Your task to perform on an android device: search for starred emails in the gmail app Image 0: 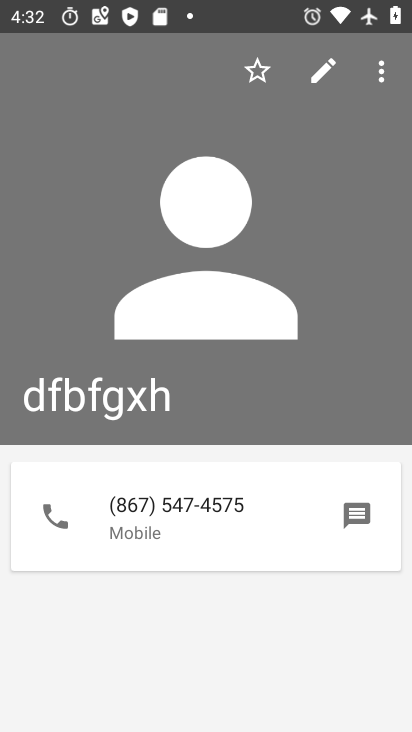
Step 0: press home button
Your task to perform on an android device: search for starred emails in the gmail app Image 1: 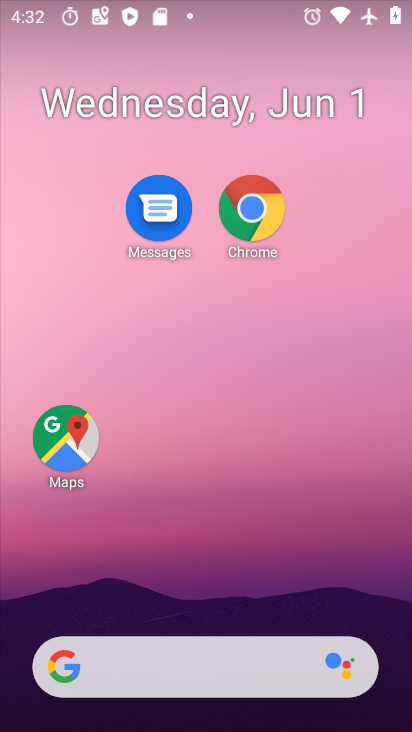
Step 1: drag from (191, 612) to (156, 209)
Your task to perform on an android device: search for starred emails in the gmail app Image 2: 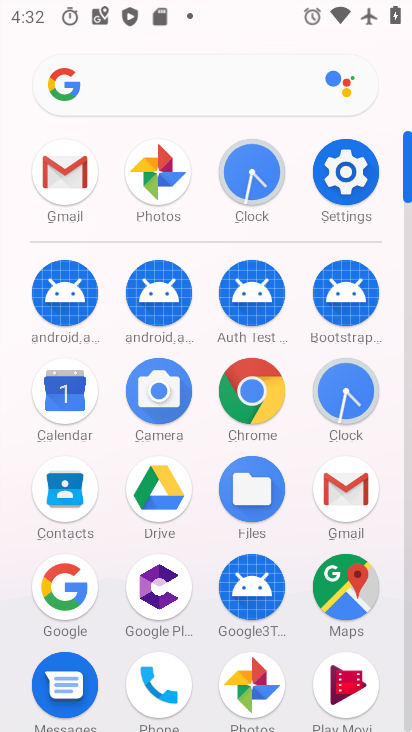
Step 2: click (79, 180)
Your task to perform on an android device: search for starred emails in the gmail app Image 3: 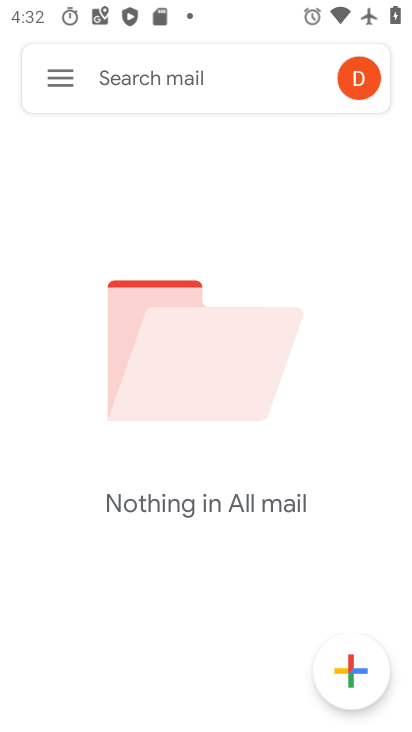
Step 3: click (69, 79)
Your task to perform on an android device: search for starred emails in the gmail app Image 4: 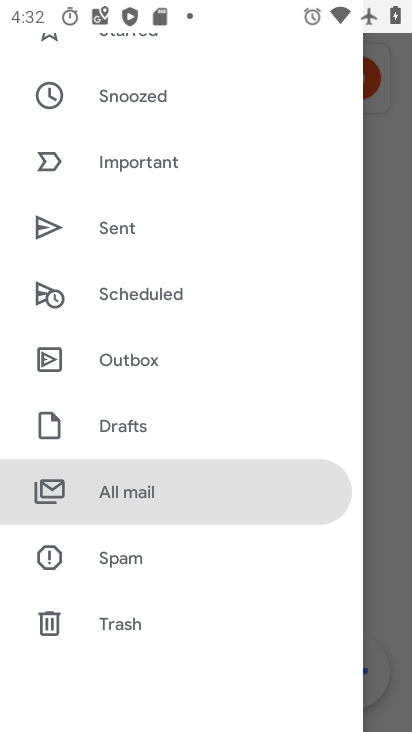
Step 4: drag from (155, 147) to (186, 401)
Your task to perform on an android device: search for starred emails in the gmail app Image 5: 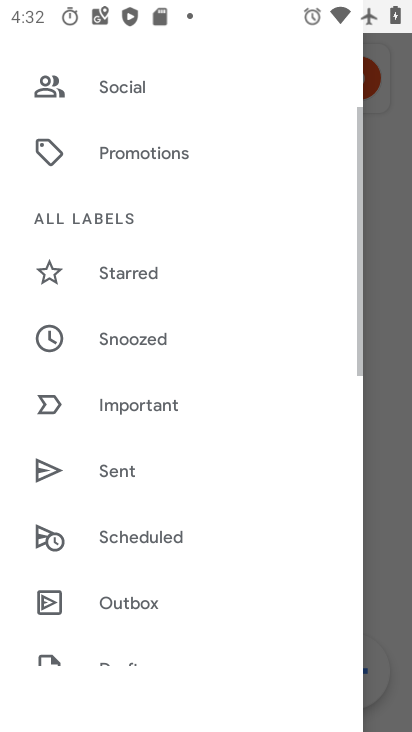
Step 5: drag from (138, 151) to (187, 502)
Your task to perform on an android device: search for starred emails in the gmail app Image 6: 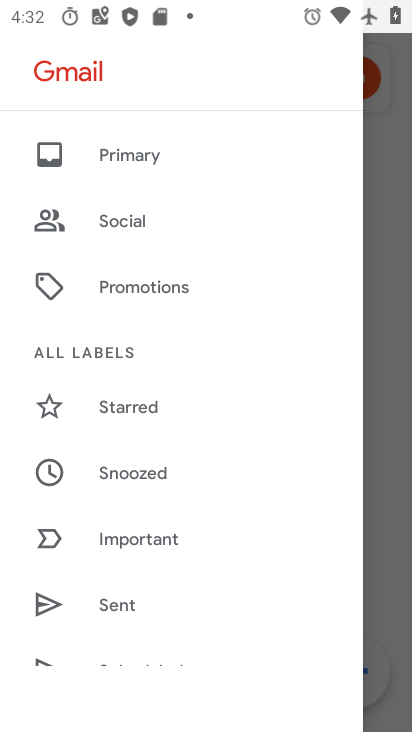
Step 6: click (156, 410)
Your task to perform on an android device: search for starred emails in the gmail app Image 7: 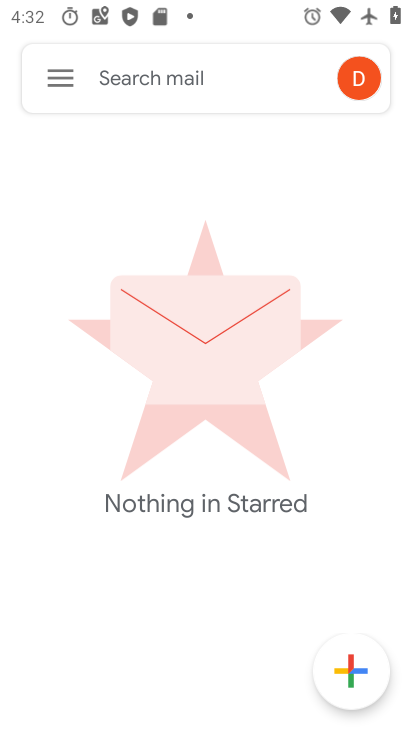
Step 7: task complete